Your task to perform on an android device: toggle javascript in the chrome app Image 0: 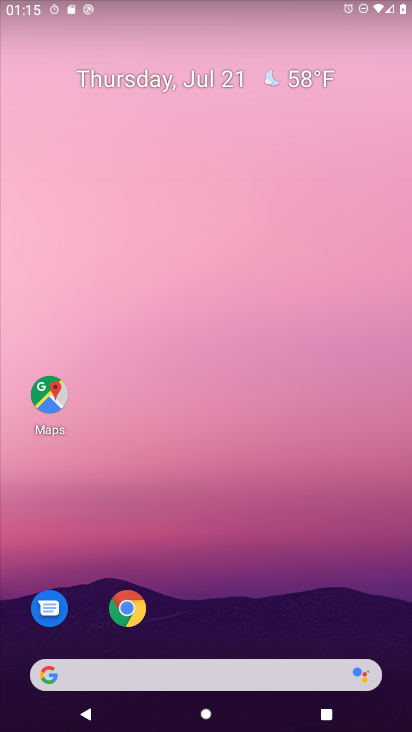
Step 0: press home button
Your task to perform on an android device: toggle javascript in the chrome app Image 1: 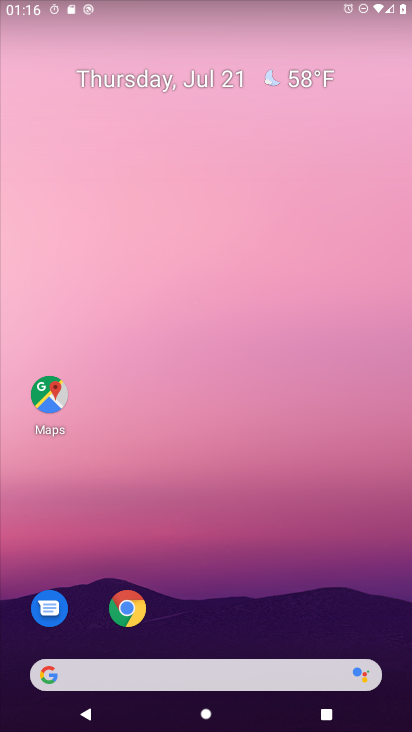
Step 1: drag from (210, 641) to (114, 5)
Your task to perform on an android device: toggle javascript in the chrome app Image 2: 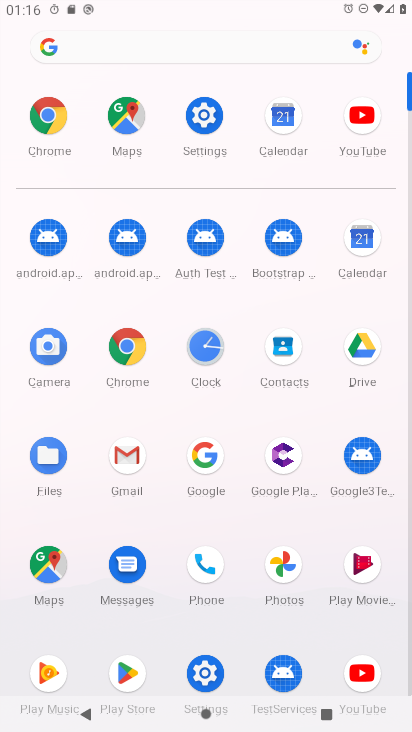
Step 2: click (20, 111)
Your task to perform on an android device: toggle javascript in the chrome app Image 3: 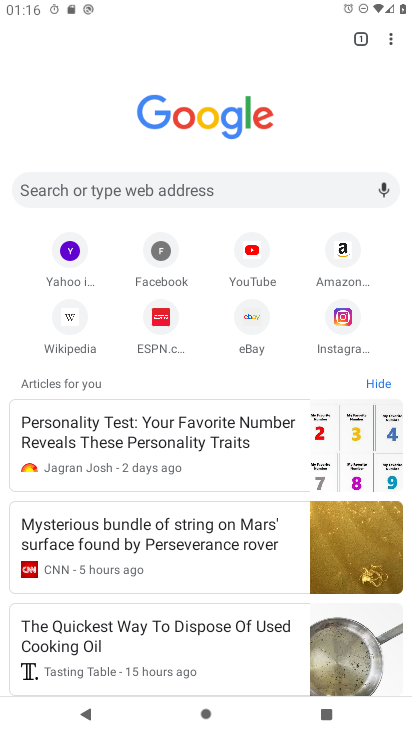
Step 3: drag from (387, 42) to (263, 328)
Your task to perform on an android device: toggle javascript in the chrome app Image 4: 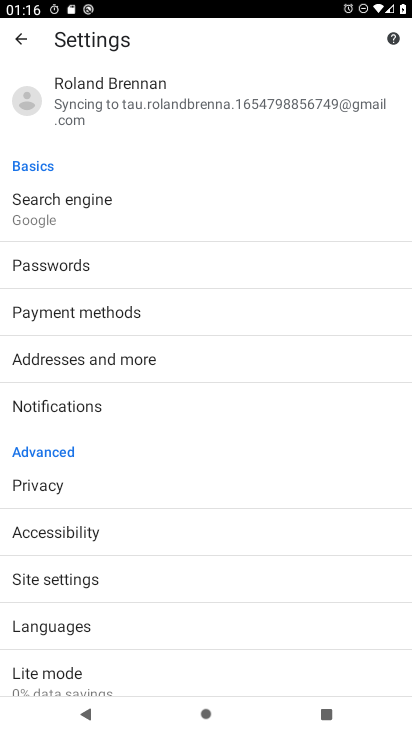
Step 4: click (54, 584)
Your task to perform on an android device: toggle javascript in the chrome app Image 5: 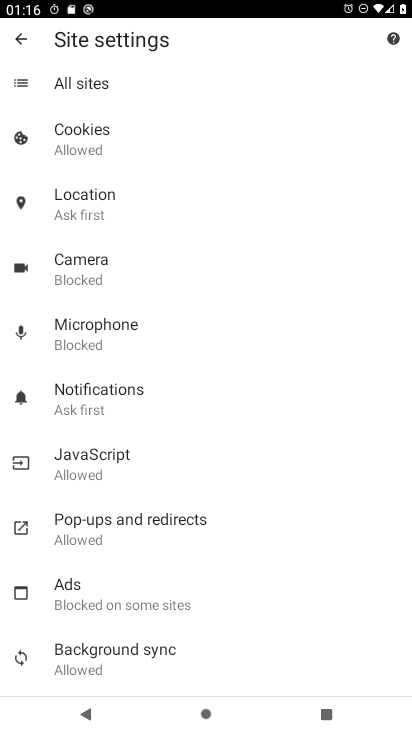
Step 5: click (85, 456)
Your task to perform on an android device: toggle javascript in the chrome app Image 6: 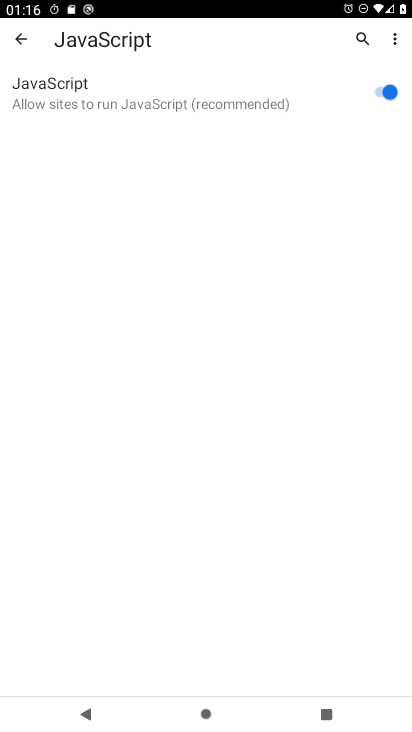
Step 6: task complete